Your task to perform on an android device: Open the web browser Image 0: 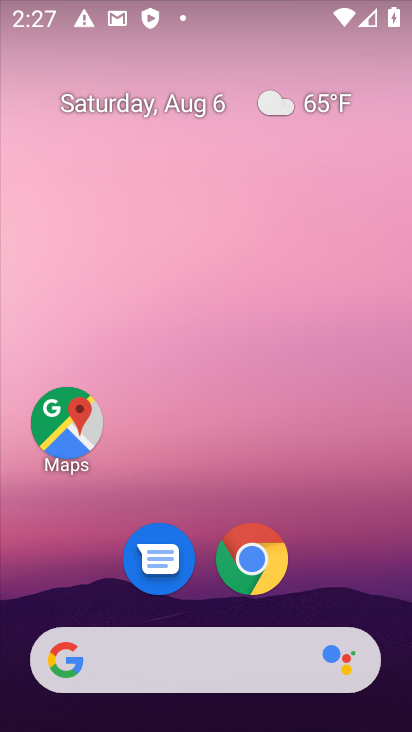
Step 0: click (267, 583)
Your task to perform on an android device: Open the web browser Image 1: 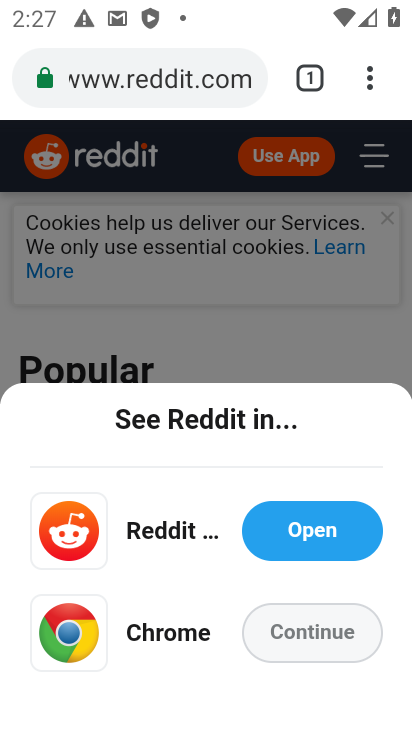
Step 1: task complete